Your task to perform on an android device: When is my next appointment? Image 0: 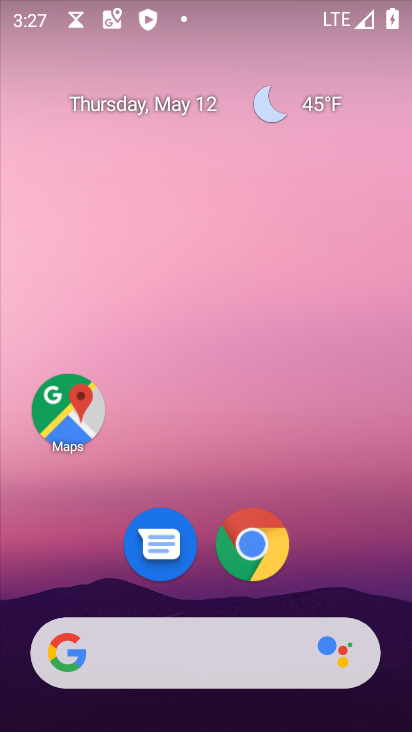
Step 0: drag from (339, 603) to (292, 96)
Your task to perform on an android device: When is my next appointment? Image 1: 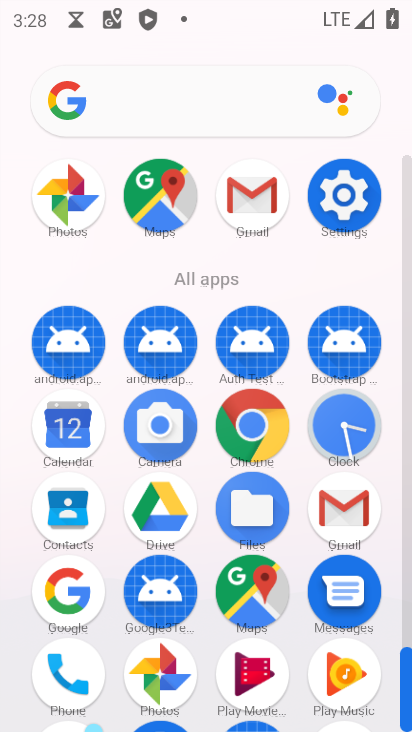
Step 1: click (52, 438)
Your task to perform on an android device: When is my next appointment? Image 2: 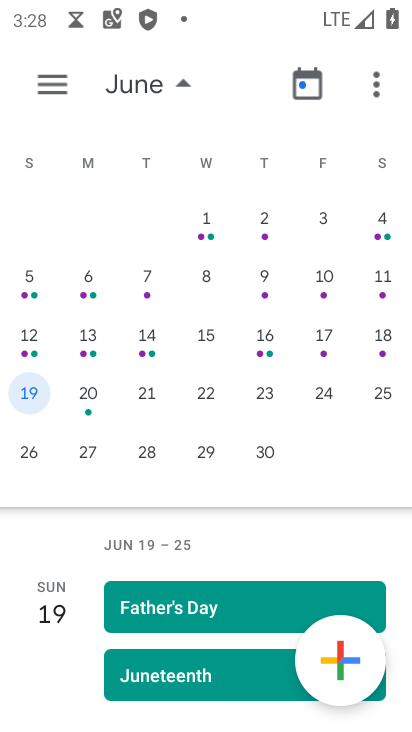
Step 2: drag from (65, 336) to (352, 376)
Your task to perform on an android device: When is my next appointment? Image 3: 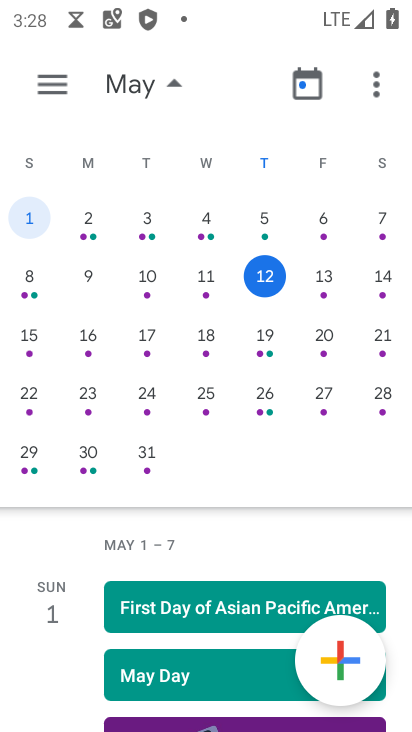
Step 3: click (268, 281)
Your task to perform on an android device: When is my next appointment? Image 4: 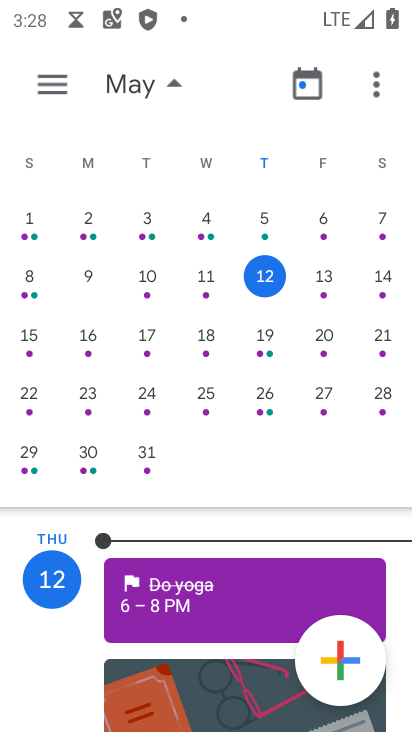
Step 4: task complete